Your task to perform on an android device: turn pop-ups off in chrome Image 0: 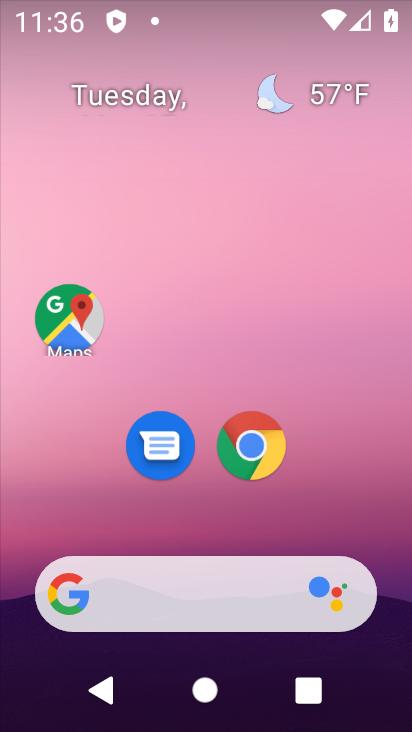
Step 0: drag from (356, 522) to (361, 157)
Your task to perform on an android device: turn pop-ups off in chrome Image 1: 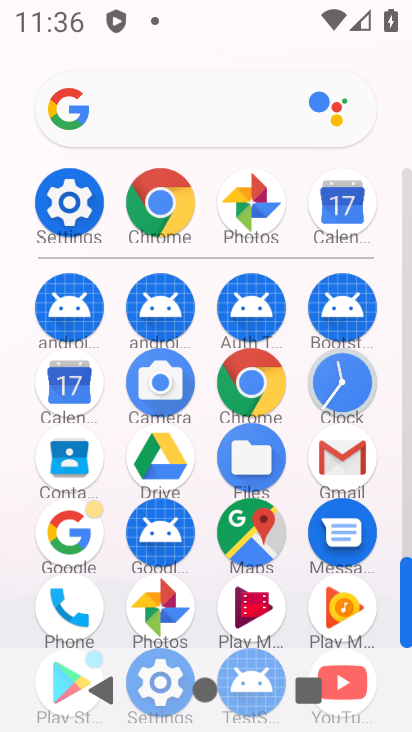
Step 1: click (167, 213)
Your task to perform on an android device: turn pop-ups off in chrome Image 2: 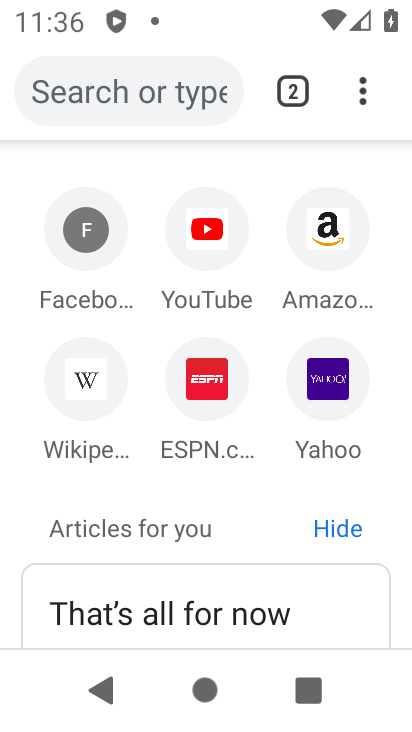
Step 2: click (361, 97)
Your task to perform on an android device: turn pop-ups off in chrome Image 3: 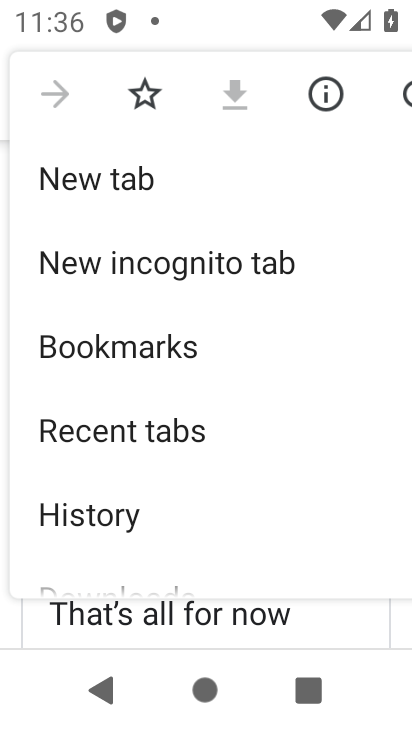
Step 3: drag from (346, 513) to (323, 302)
Your task to perform on an android device: turn pop-ups off in chrome Image 4: 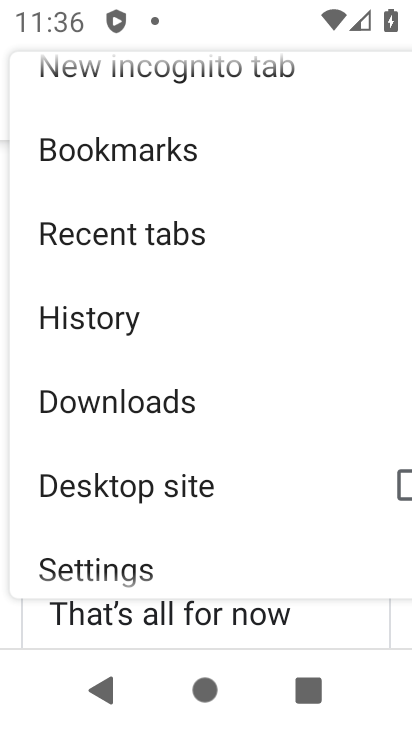
Step 4: drag from (306, 531) to (307, 346)
Your task to perform on an android device: turn pop-ups off in chrome Image 5: 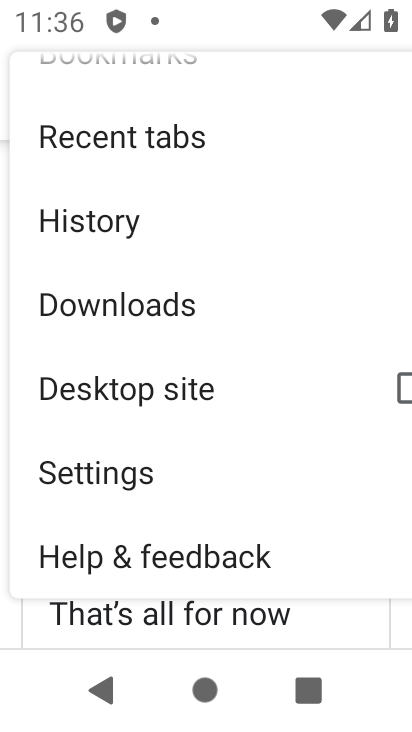
Step 5: click (134, 485)
Your task to perform on an android device: turn pop-ups off in chrome Image 6: 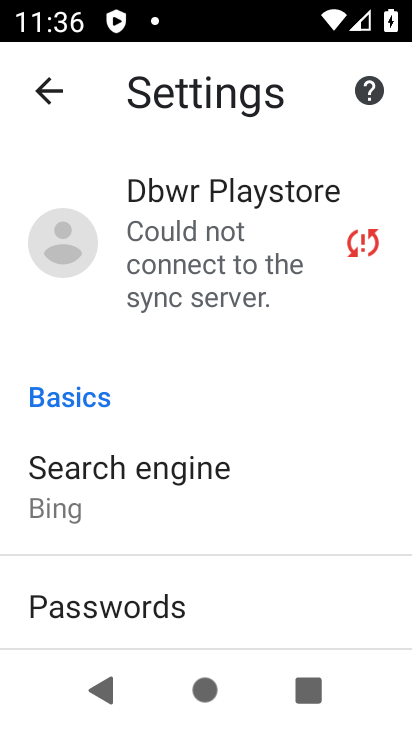
Step 6: drag from (294, 570) to (300, 446)
Your task to perform on an android device: turn pop-ups off in chrome Image 7: 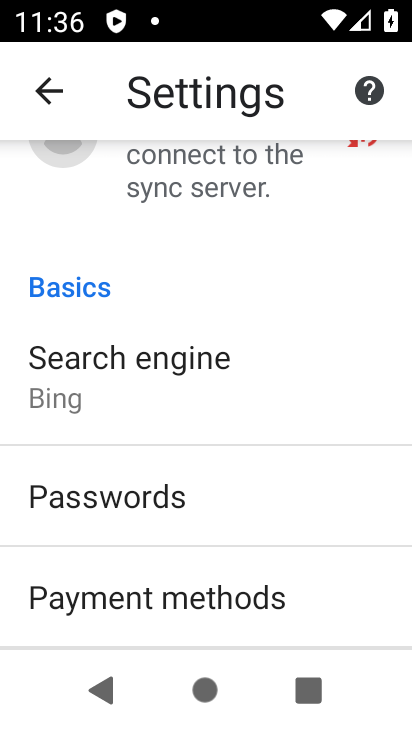
Step 7: drag from (320, 586) to (332, 414)
Your task to perform on an android device: turn pop-ups off in chrome Image 8: 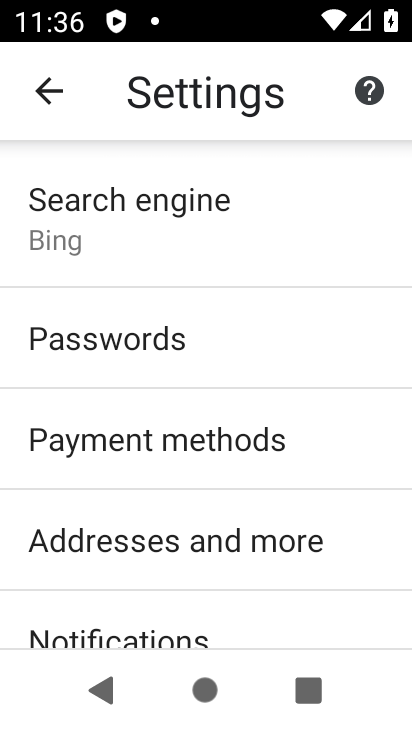
Step 8: drag from (323, 599) to (316, 398)
Your task to perform on an android device: turn pop-ups off in chrome Image 9: 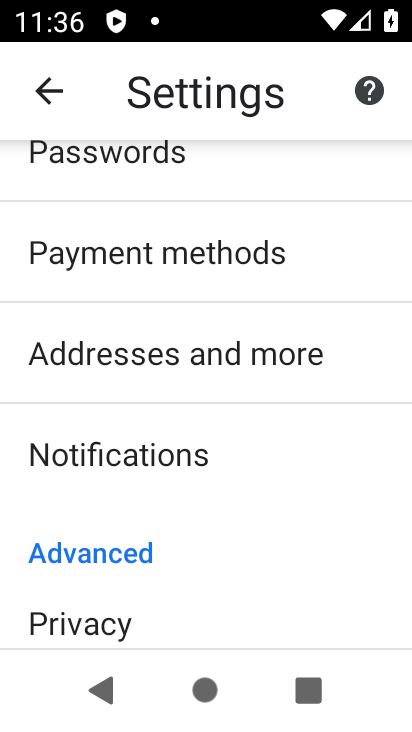
Step 9: drag from (302, 577) to (310, 429)
Your task to perform on an android device: turn pop-ups off in chrome Image 10: 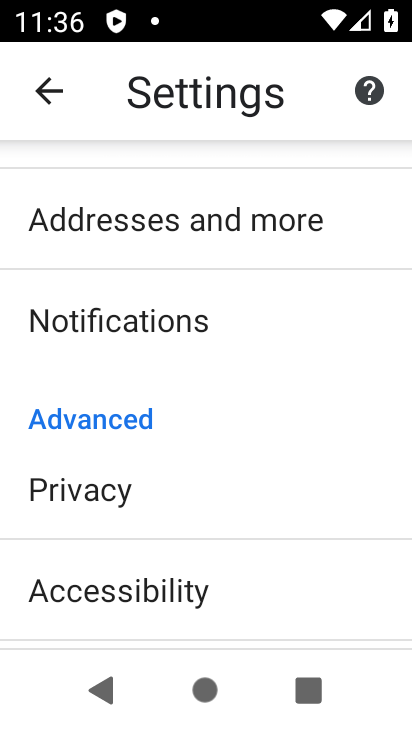
Step 10: drag from (291, 595) to (302, 459)
Your task to perform on an android device: turn pop-ups off in chrome Image 11: 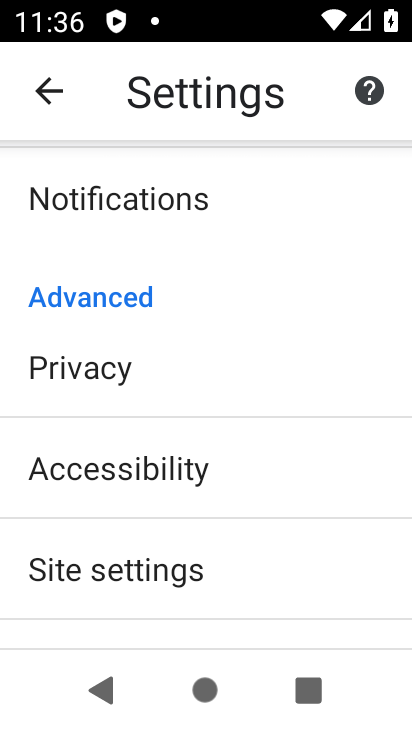
Step 11: drag from (276, 603) to (291, 468)
Your task to perform on an android device: turn pop-ups off in chrome Image 12: 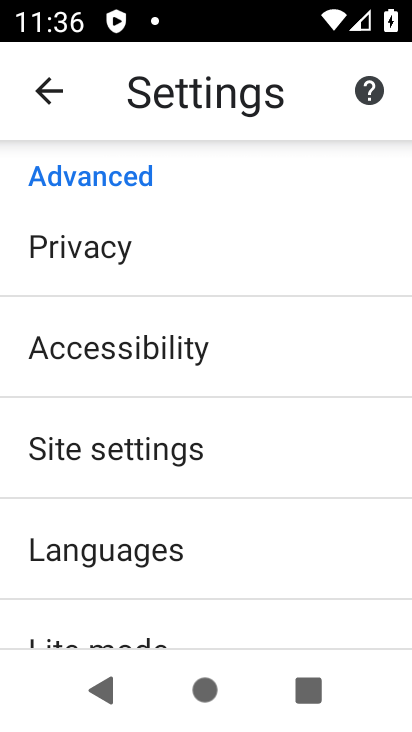
Step 12: drag from (296, 610) to (304, 369)
Your task to perform on an android device: turn pop-ups off in chrome Image 13: 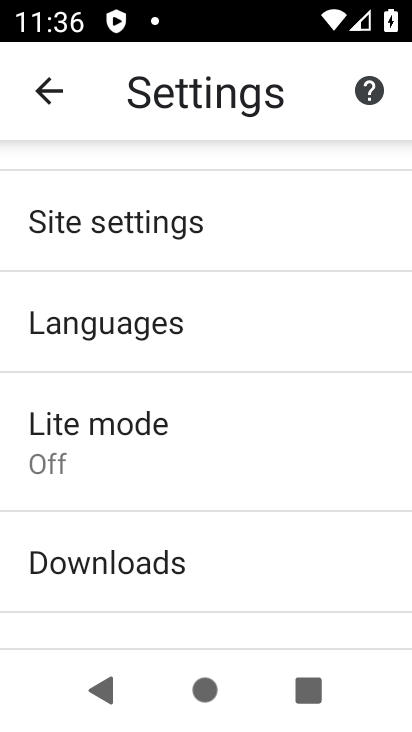
Step 13: click (264, 246)
Your task to perform on an android device: turn pop-ups off in chrome Image 14: 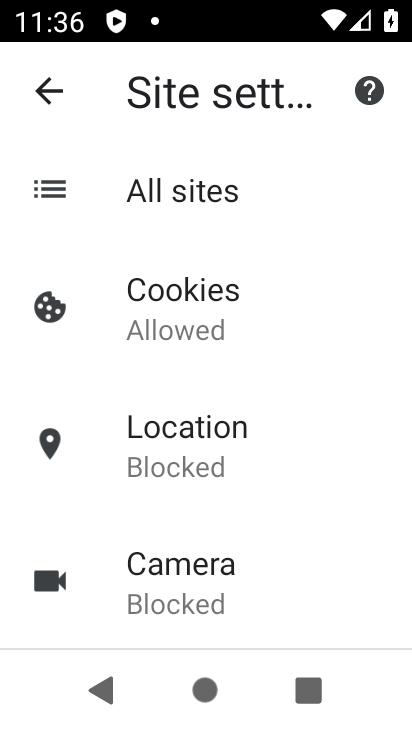
Step 14: drag from (305, 530) to (309, 383)
Your task to perform on an android device: turn pop-ups off in chrome Image 15: 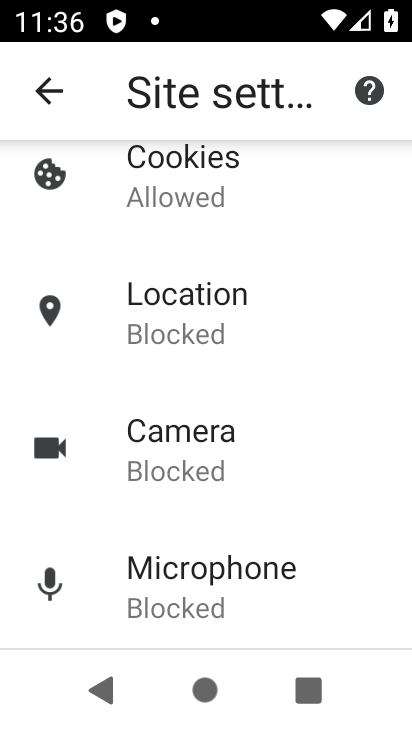
Step 15: drag from (334, 534) to (333, 405)
Your task to perform on an android device: turn pop-ups off in chrome Image 16: 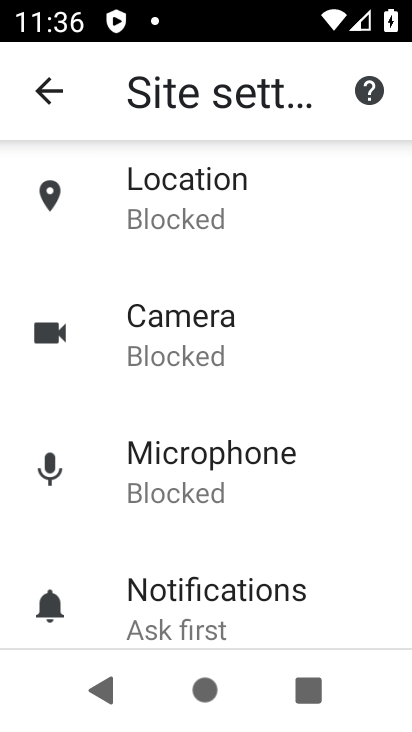
Step 16: drag from (340, 510) to (347, 330)
Your task to perform on an android device: turn pop-ups off in chrome Image 17: 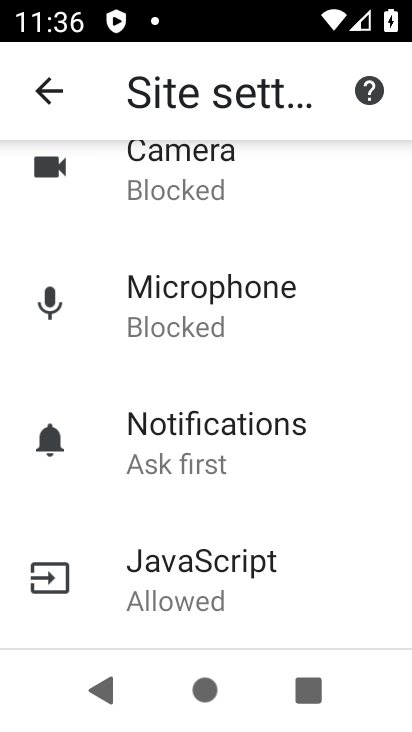
Step 17: drag from (342, 546) to (332, 387)
Your task to perform on an android device: turn pop-ups off in chrome Image 18: 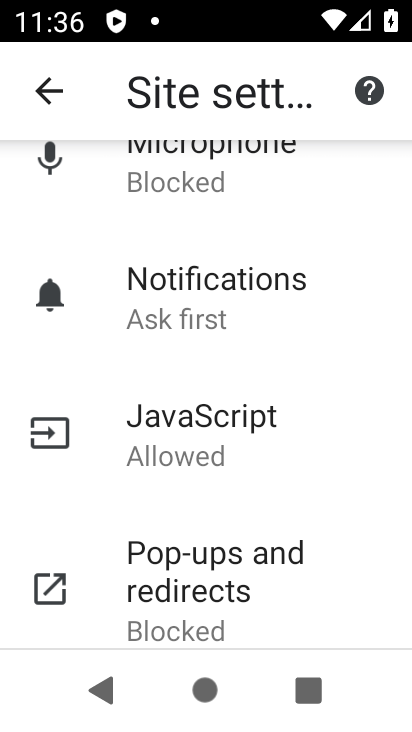
Step 18: drag from (335, 581) to (335, 418)
Your task to perform on an android device: turn pop-ups off in chrome Image 19: 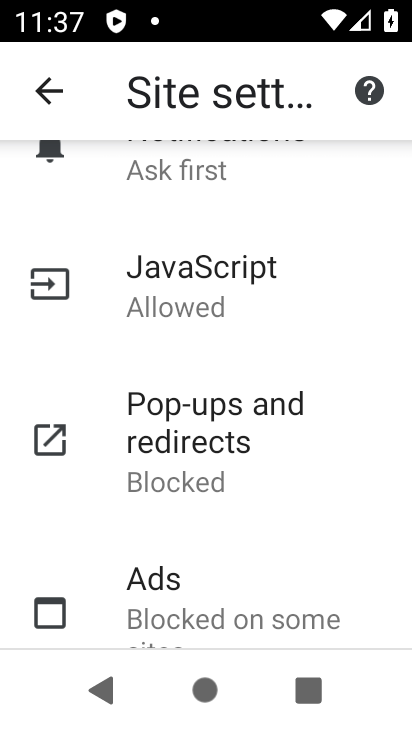
Step 19: drag from (321, 572) to (321, 435)
Your task to perform on an android device: turn pop-ups off in chrome Image 20: 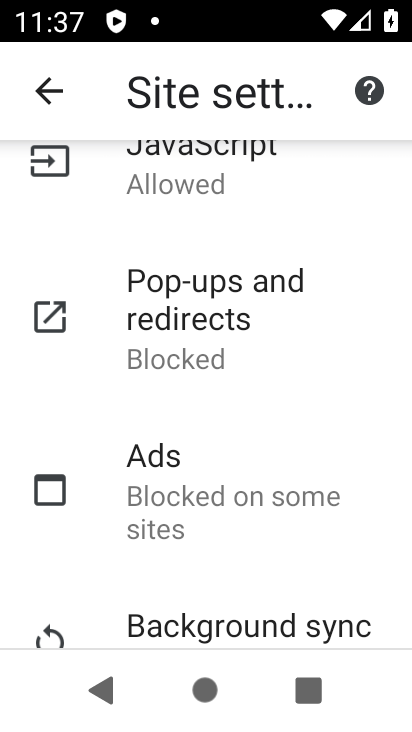
Step 20: click (222, 338)
Your task to perform on an android device: turn pop-ups off in chrome Image 21: 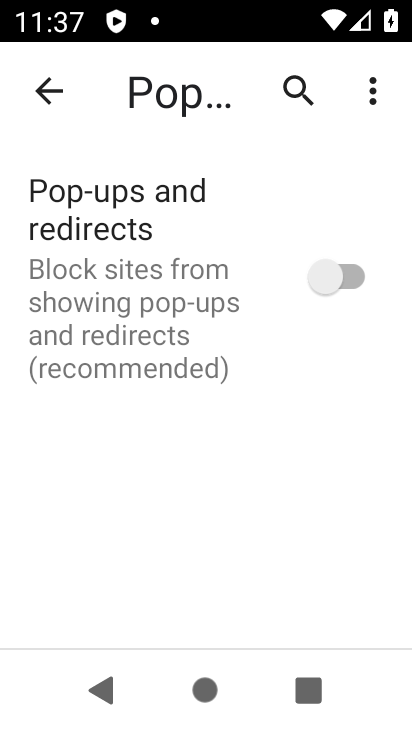
Step 21: task complete